Your task to perform on an android device: What's the weather going to be this weekend? Image 0: 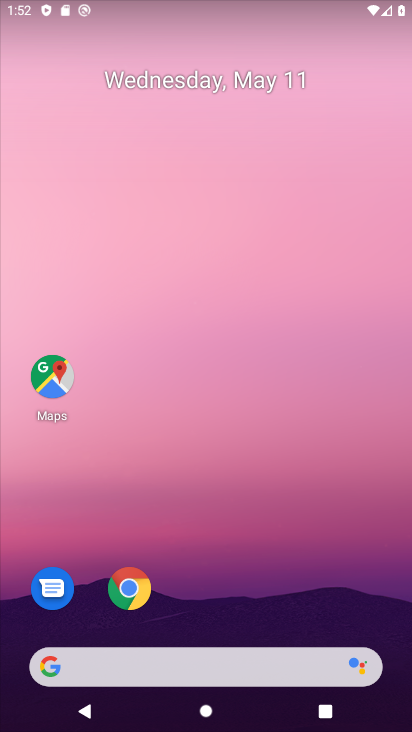
Step 0: drag from (216, 600) to (198, 207)
Your task to perform on an android device: What's the weather going to be this weekend? Image 1: 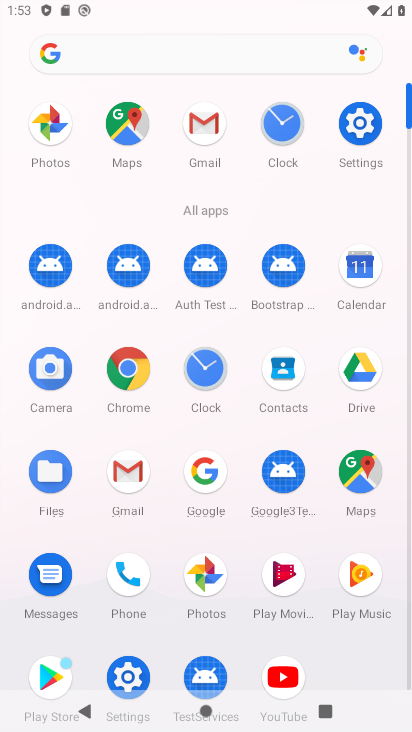
Step 1: click (353, 265)
Your task to perform on an android device: What's the weather going to be this weekend? Image 2: 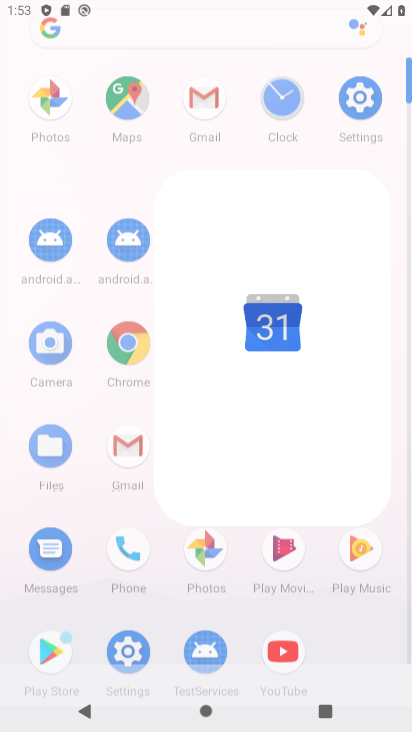
Step 2: press home button
Your task to perform on an android device: What's the weather going to be this weekend? Image 3: 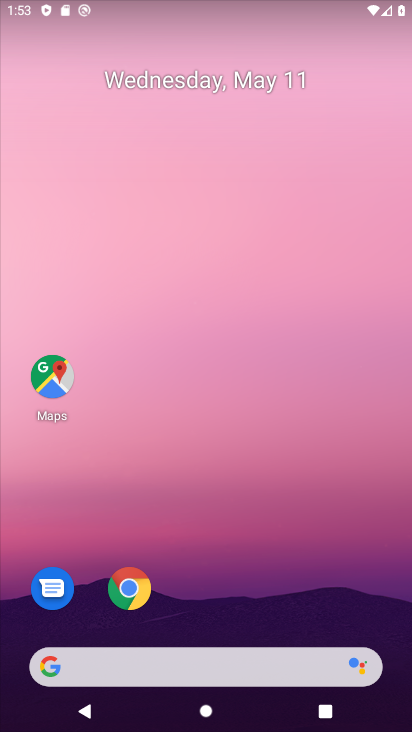
Step 3: drag from (197, 520) to (190, 174)
Your task to perform on an android device: What's the weather going to be this weekend? Image 4: 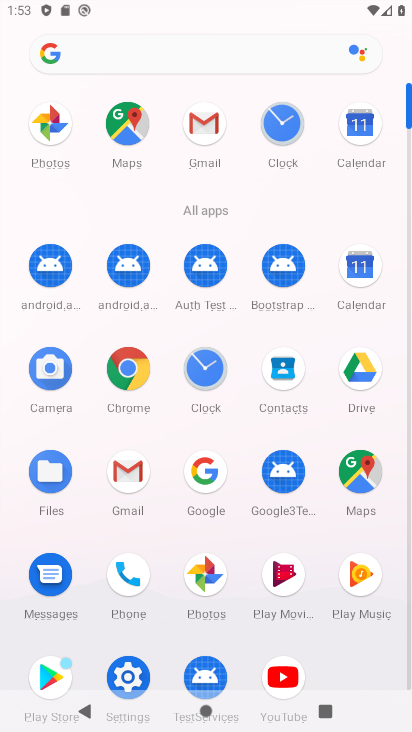
Step 4: click (209, 482)
Your task to perform on an android device: What's the weather going to be this weekend? Image 5: 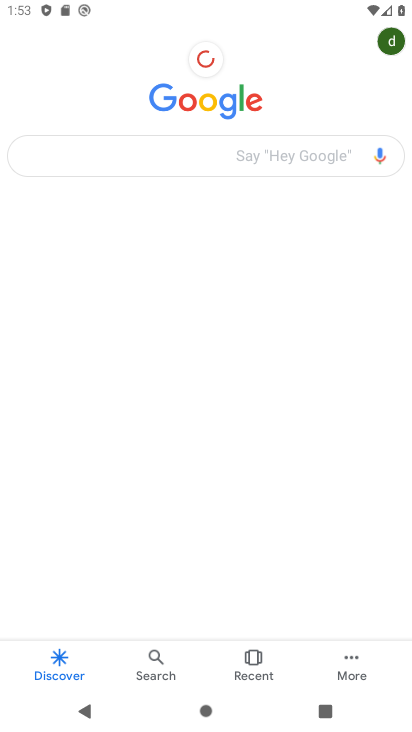
Step 5: click (168, 160)
Your task to perform on an android device: What's the weather going to be this weekend? Image 6: 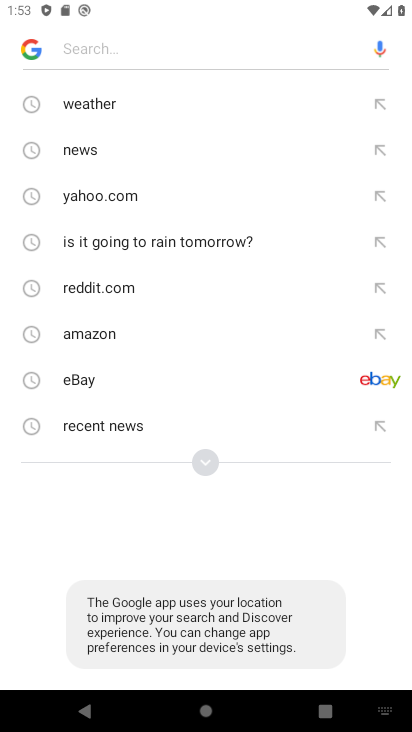
Step 6: click (153, 99)
Your task to perform on an android device: What's the weather going to be this weekend? Image 7: 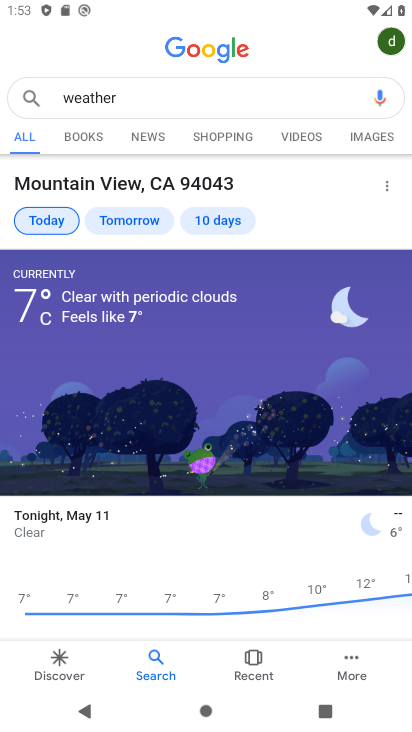
Step 7: click (233, 210)
Your task to perform on an android device: What's the weather going to be this weekend? Image 8: 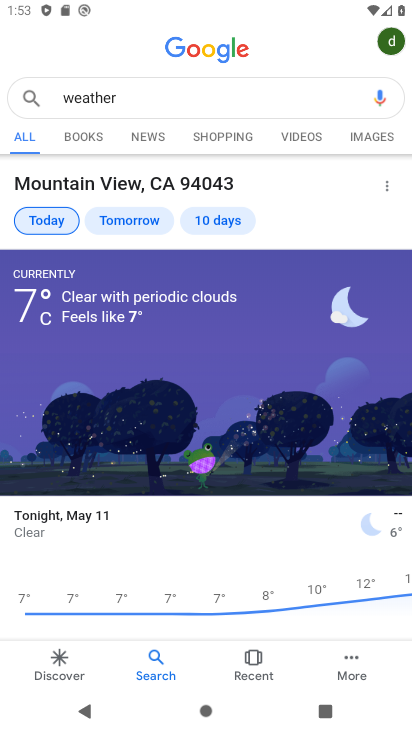
Step 8: task complete